Your task to perform on an android device: toggle pop-ups in chrome Image 0: 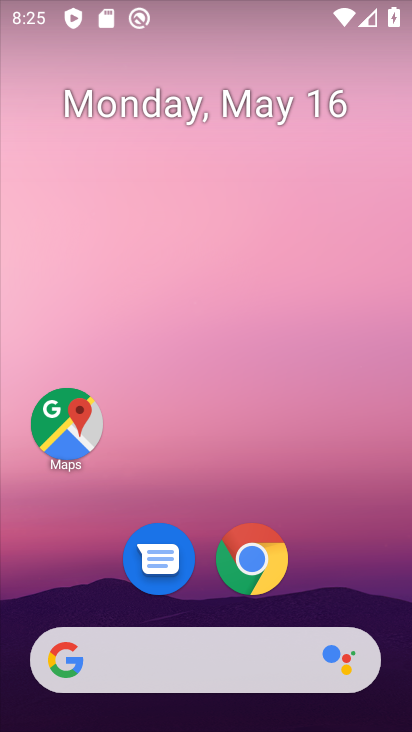
Step 0: click (237, 555)
Your task to perform on an android device: toggle pop-ups in chrome Image 1: 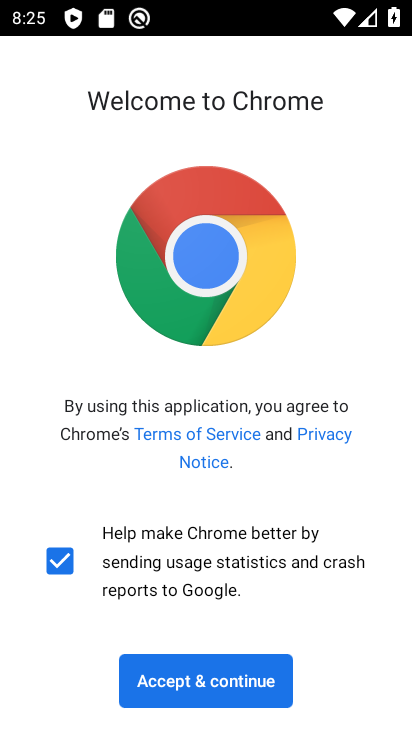
Step 1: click (226, 666)
Your task to perform on an android device: toggle pop-ups in chrome Image 2: 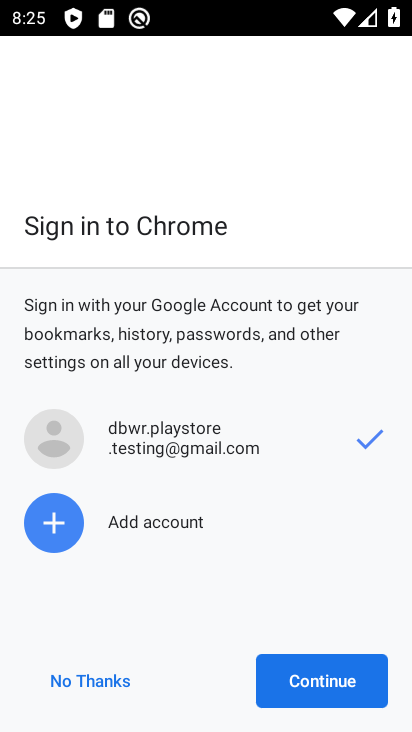
Step 2: click (370, 662)
Your task to perform on an android device: toggle pop-ups in chrome Image 3: 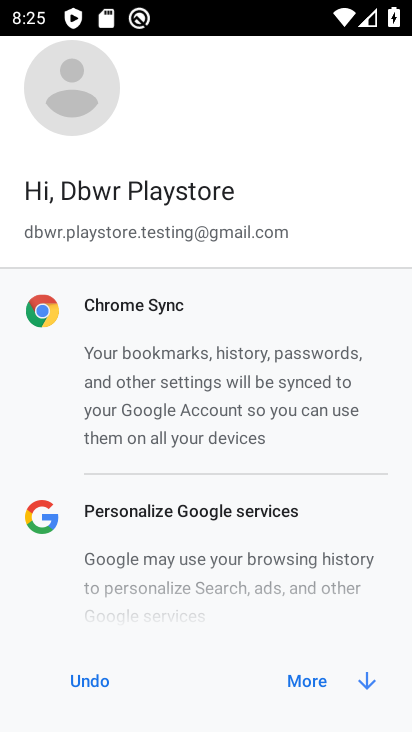
Step 3: click (365, 664)
Your task to perform on an android device: toggle pop-ups in chrome Image 4: 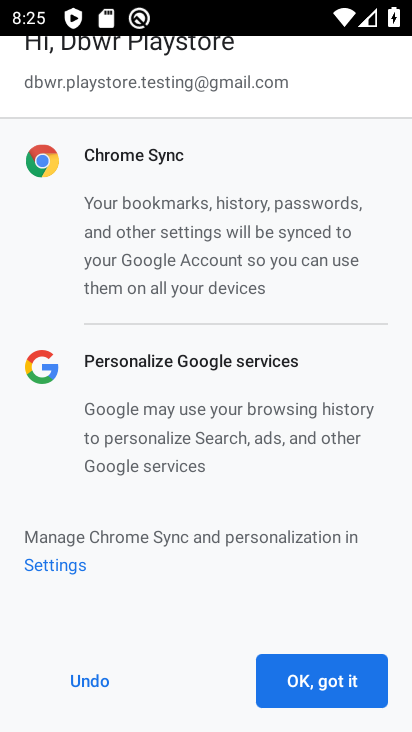
Step 4: click (354, 680)
Your task to perform on an android device: toggle pop-ups in chrome Image 5: 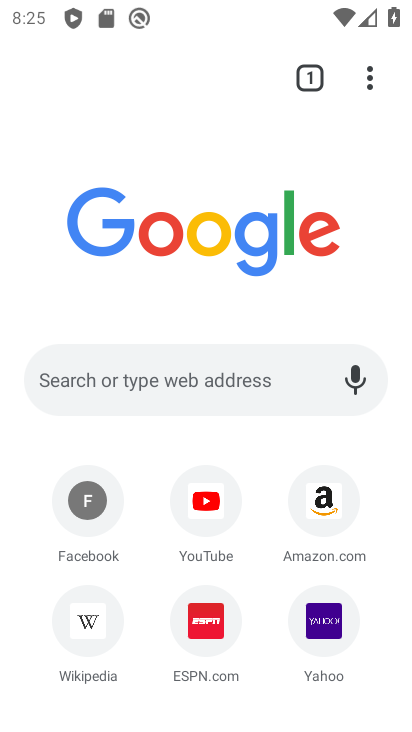
Step 5: click (375, 89)
Your task to perform on an android device: toggle pop-ups in chrome Image 6: 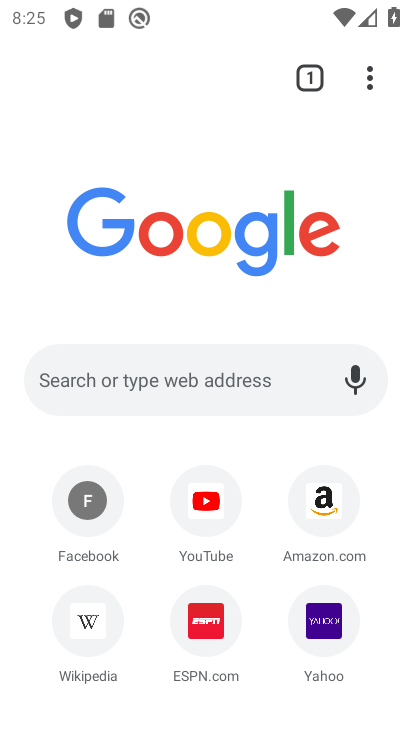
Step 6: click (363, 92)
Your task to perform on an android device: toggle pop-ups in chrome Image 7: 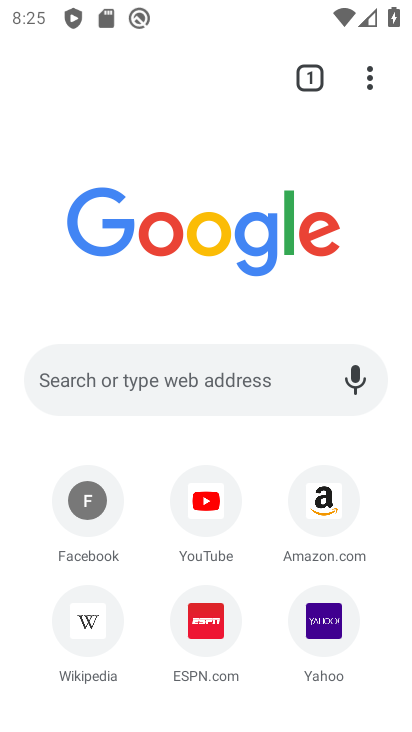
Step 7: click (347, 88)
Your task to perform on an android device: toggle pop-ups in chrome Image 8: 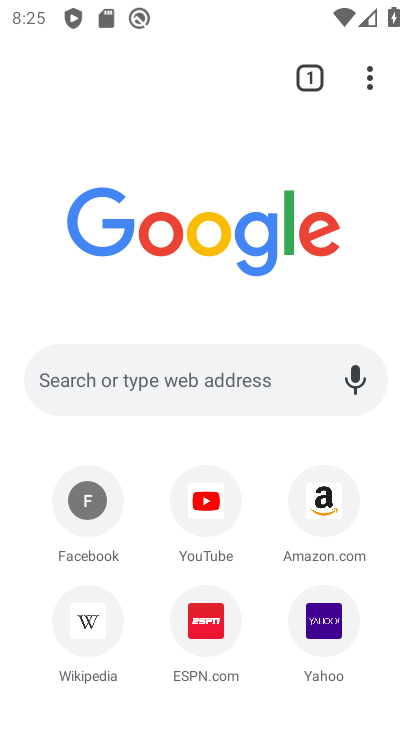
Step 8: click (348, 100)
Your task to perform on an android device: toggle pop-ups in chrome Image 9: 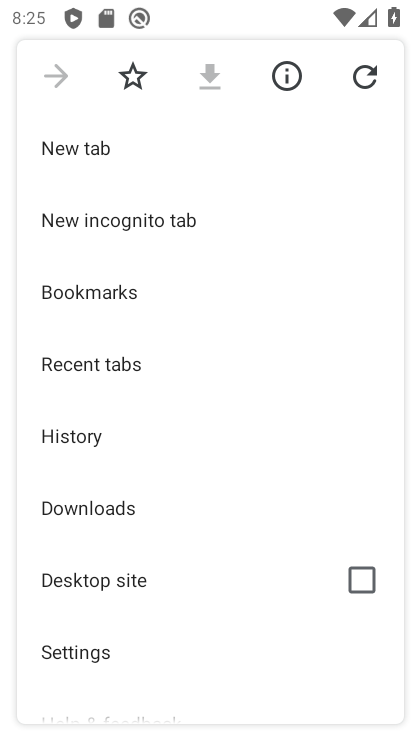
Step 9: click (158, 665)
Your task to perform on an android device: toggle pop-ups in chrome Image 10: 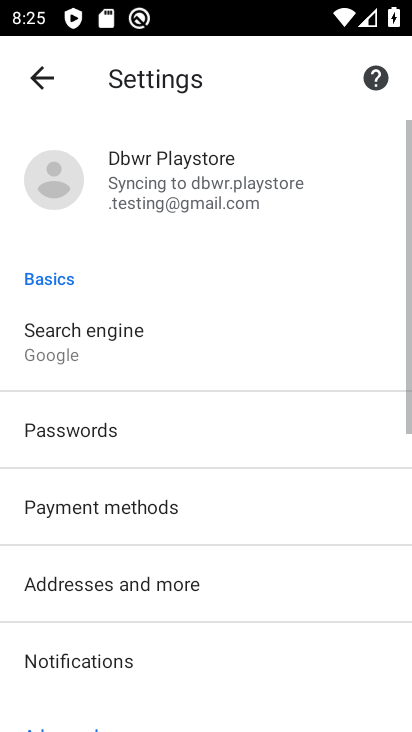
Step 10: drag from (209, 563) to (223, 338)
Your task to perform on an android device: toggle pop-ups in chrome Image 11: 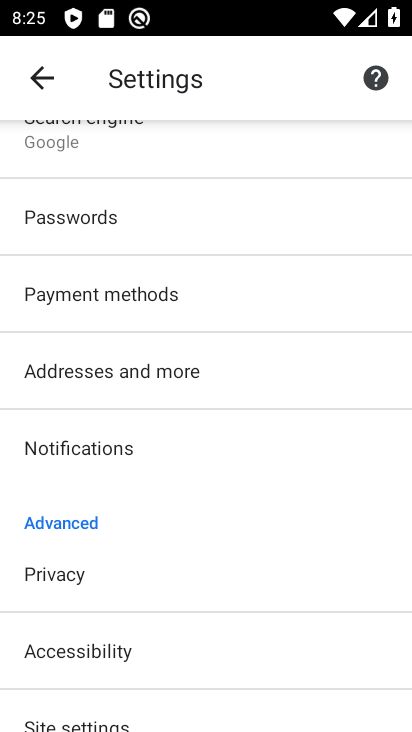
Step 11: drag from (179, 563) to (223, 369)
Your task to perform on an android device: toggle pop-ups in chrome Image 12: 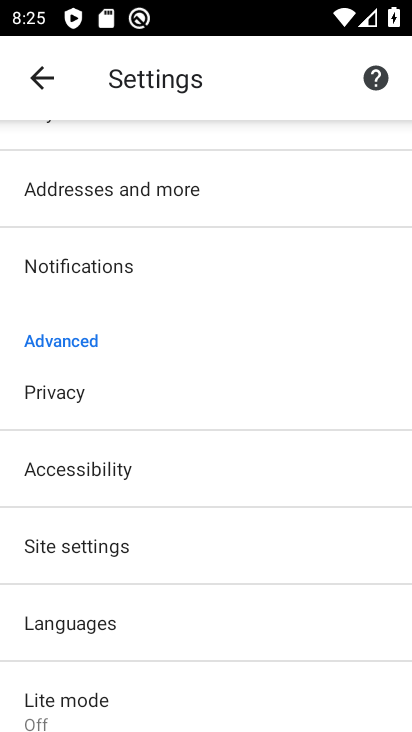
Step 12: click (209, 549)
Your task to perform on an android device: toggle pop-ups in chrome Image 13: 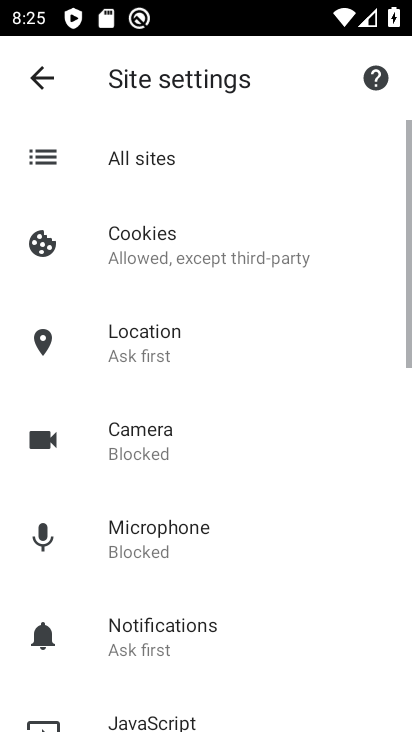
Step 13: drag from (265, 608) to (254, 389)
Your task to perform on an android device: toggle pop-ups in chrome Image 14: 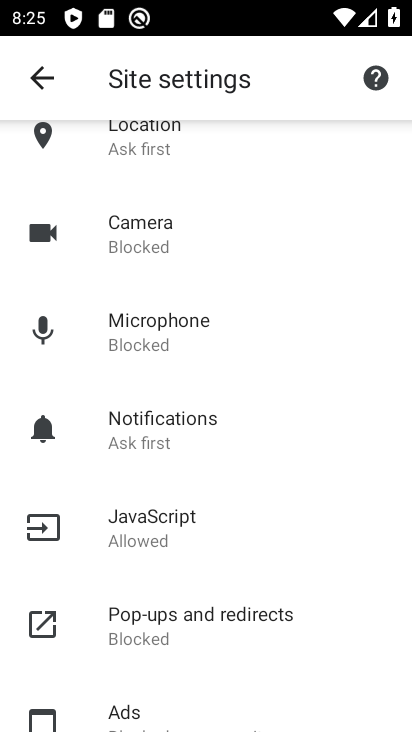
Step 14: click (259, 615)
Your task to perform on an android device: toggle pop-ups in chrome Image 15: 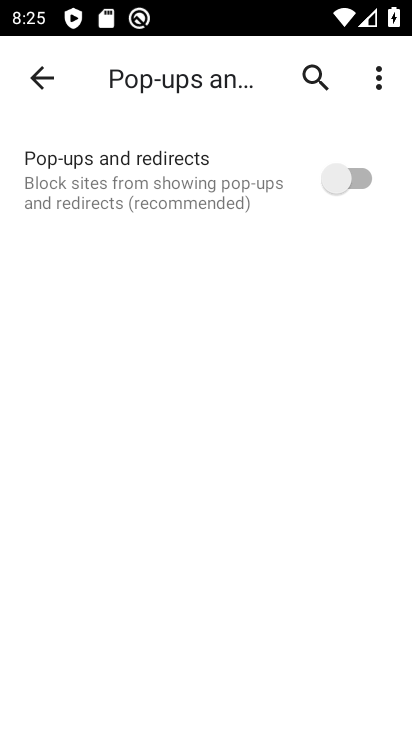
Step 15: click (344, 186)
Your task to perform on an android device: toggle pop-ups in chrome Image 16: 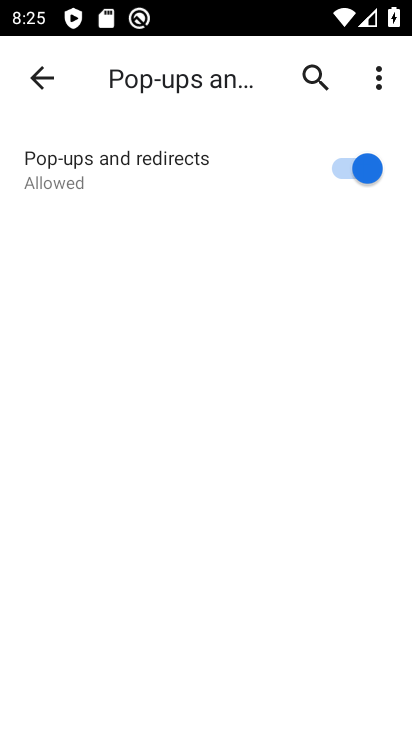
Step 16: task complete